Your task to perform on an android device: Search for amazon basics triple a on ebay.com, select the first entry, add it to the cart, then select checkout. Image 0: 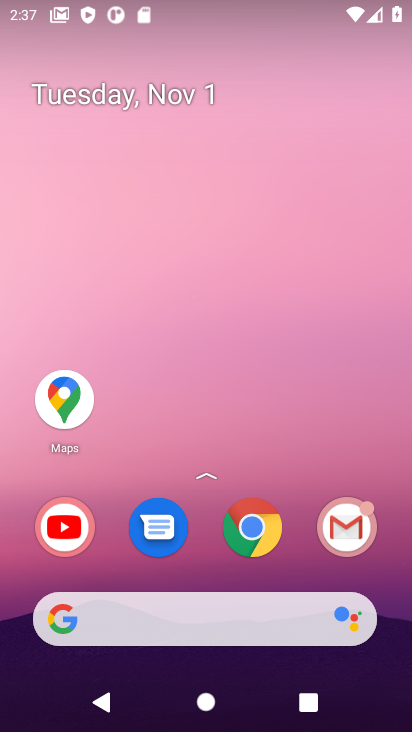
Step 0: press home button
Your task to perform on an android device: Search for amazon basics triple a on ebay.com, select the first entry, add it to the cart, then select checkout. Image 1: 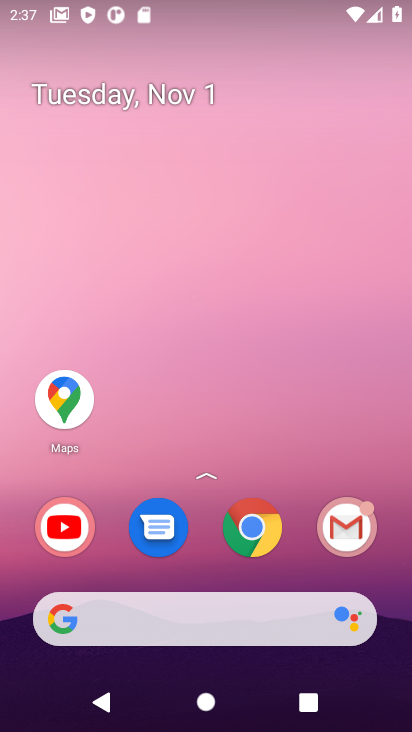
Step 1: click (224, 623)
Your task to perform on an android device: Search for amazon basics triple a on ebay.com, select the first entry, add it to the cart, then select checkout. Image 2: 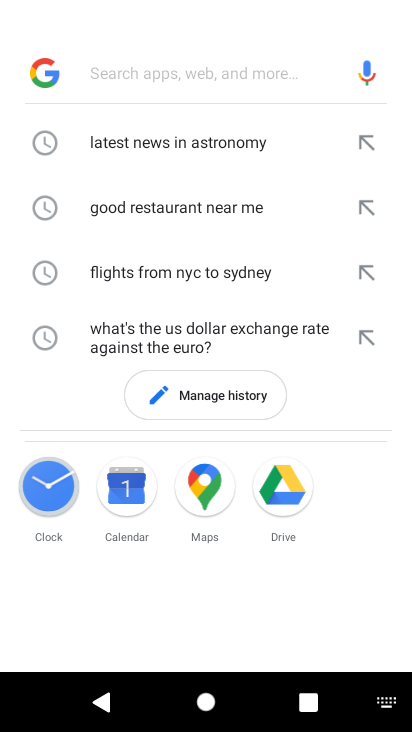
Step 2: type "ebay.com"
Your task to perform on an android device: Search for amazon basics triple a on ebay.com, select the first entry, add it to the cart, then select checkout. Image 3: 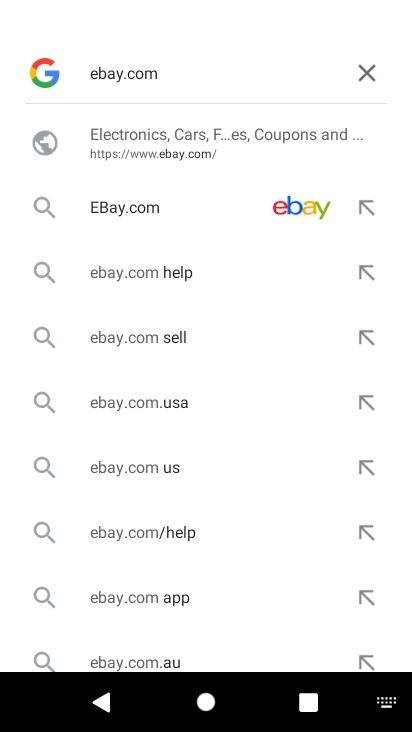
Step 3: click (169, 138)
Your task to perform on an android device: Search for amazon basics triple a on ebay.com, select the first entry, add it to the cart, then select checkout. Image 4: 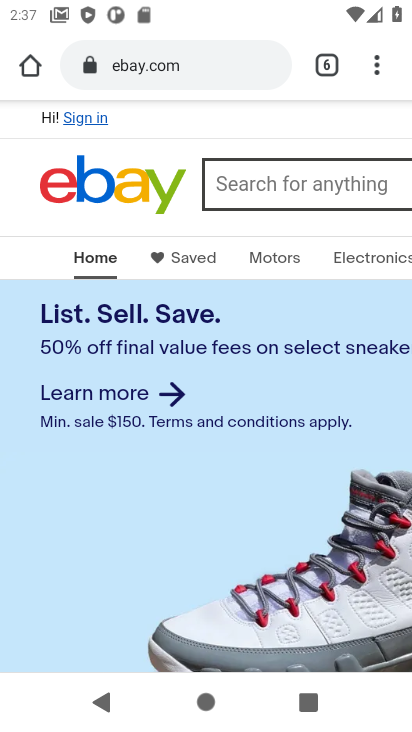
Step 4: click (221, 179)
Your task to perform on an android device: Search for amazon basics triple a on ebay.com, select the first entry, add it to the cart, then select checkout. Image 5: 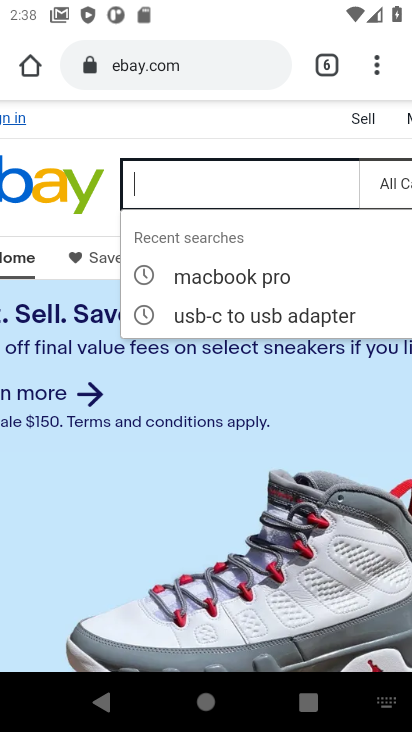
Step 5: type " amazon basics"
Your task to perform on an android device: Search for amazon basics triple a on ebay.com, select the first entry, add it to the cart, then select checkout. Image 6: 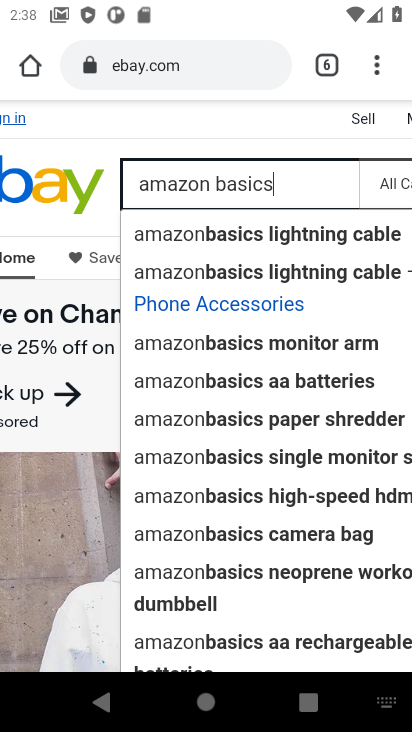
Step 6: click (318, 238)
Your task to perform on an android device: Search for amazon basics triple a on ebay.com, select the first entry, add it to the cart, then select checkout. Image 7: 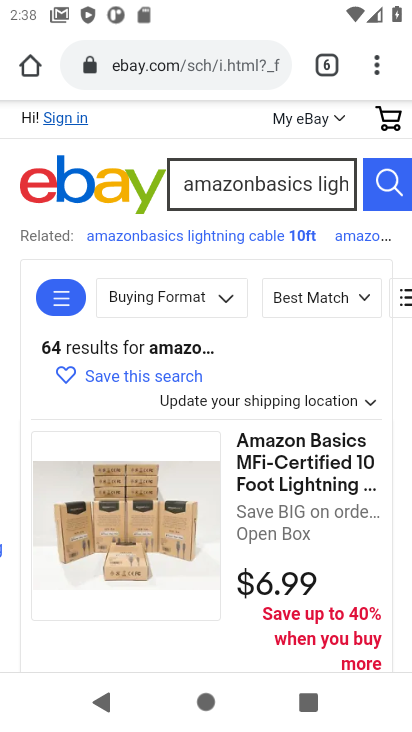
Step 7: click (309, 468)
Your task to perform on an android device: Search for amazon basics triple a on ebay.com, select the first entry, add it to the cart, then select checkout. Image 8: 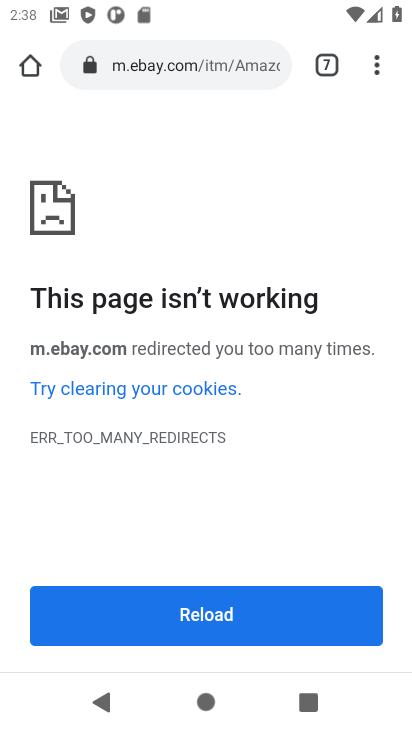
Step 8: task complete